Your task to perform on an android device: Go to Amazon Image 0: 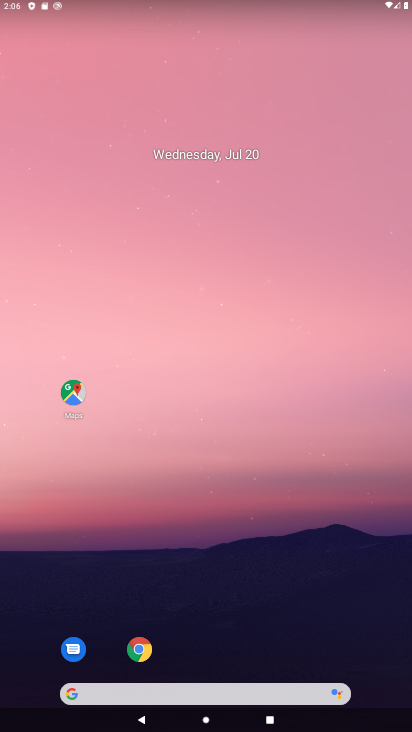
Step 0: drag from (245, 585) to (318, 228)
Your task to perform on an android device: Go to Amazon Image 1: 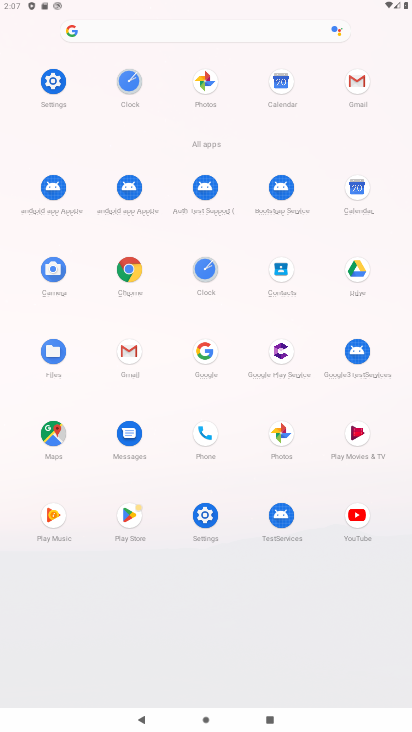
Step 1: click (130, 271)
Your task to perform on an android device: Go to Amazon Image 2: 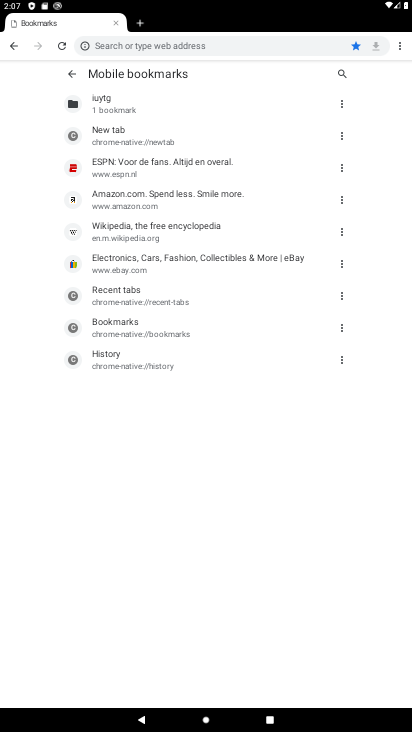
Step 2: click (141, 46)
Your task to perform on an android device: Go to Amazon Image 3: 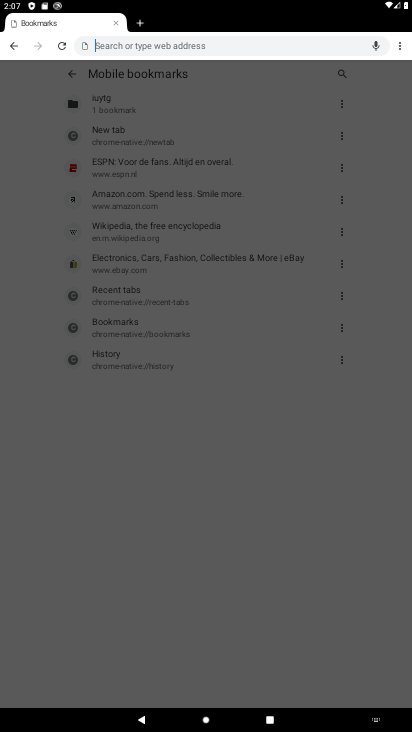
Step 3: click (119, 51)
Your task to perform on an android device: Go to Amazon Image 4: 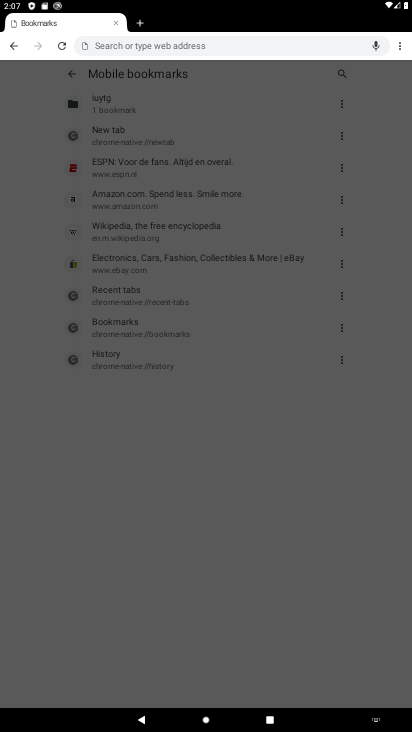
Step 4: type "Amazon"
Your task to perform on an android device: Go to Amazon Image 5: 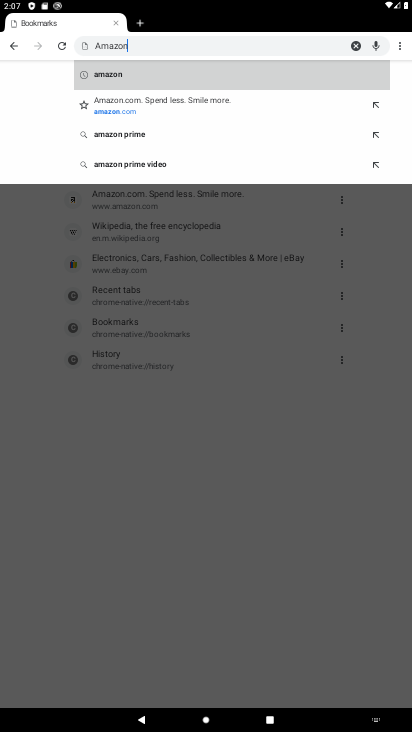
Step 5: type ""
Your task to perform on an android device: Go to Amazon Image 6: 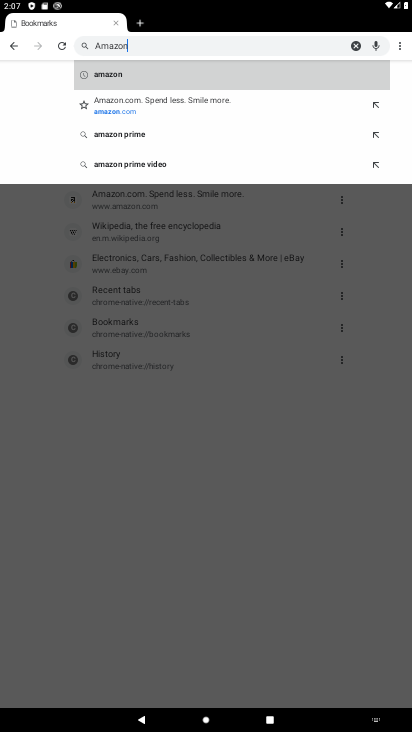
Step 6: press enter
Your task to perform on an android device: Go to Amazon Image 7: 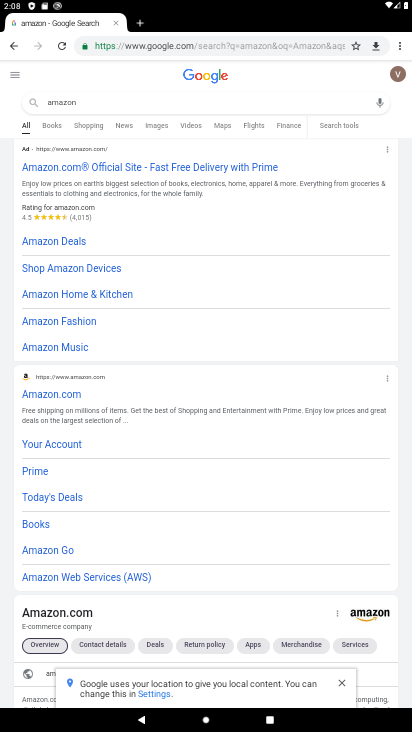
Step 7: task complete